Your task to perform on an android device: Open wifi settings Image 0: 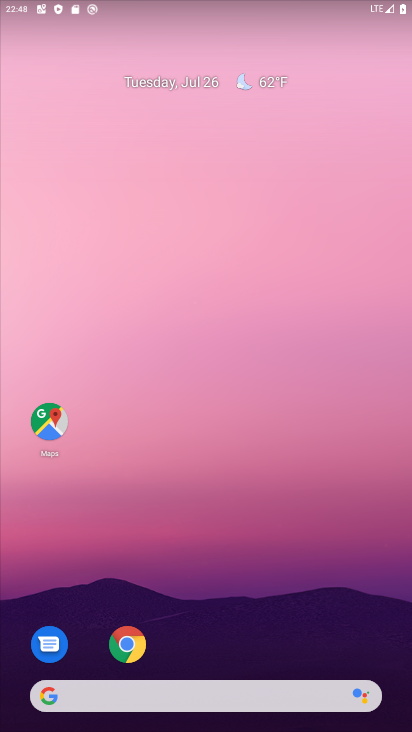
Step 0: drag from (261, 679) to (272, 8)
Your task to perform on an android device: Open wifi settings Image 1: 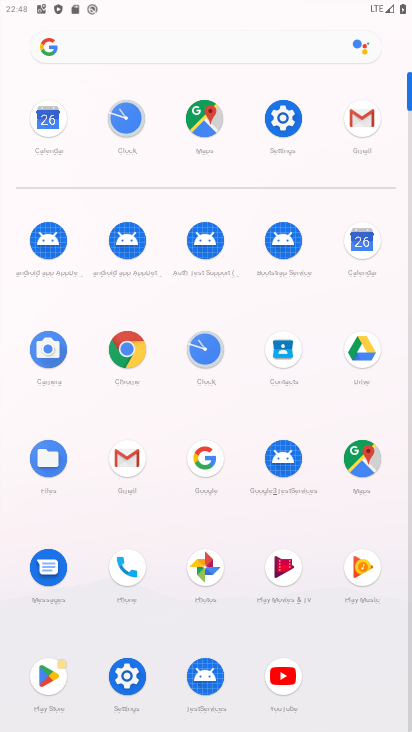
Step 1: click (278, 107)
Your task to perform on an android device: Open wifi settings Image 2: 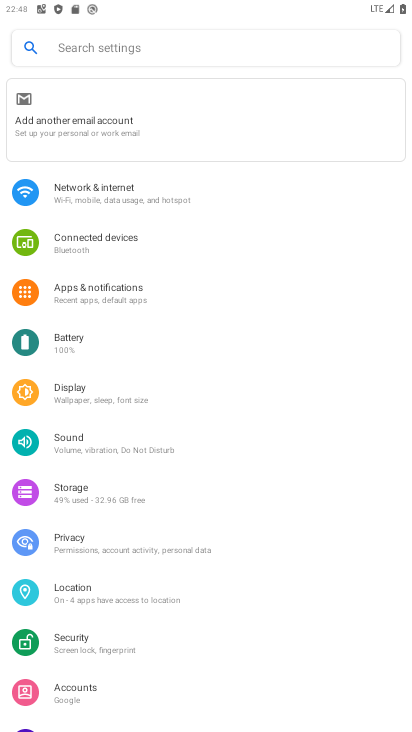
Step 2: click (76, 197)
Your task to perform on an android device: Open wifi settings Image 3: 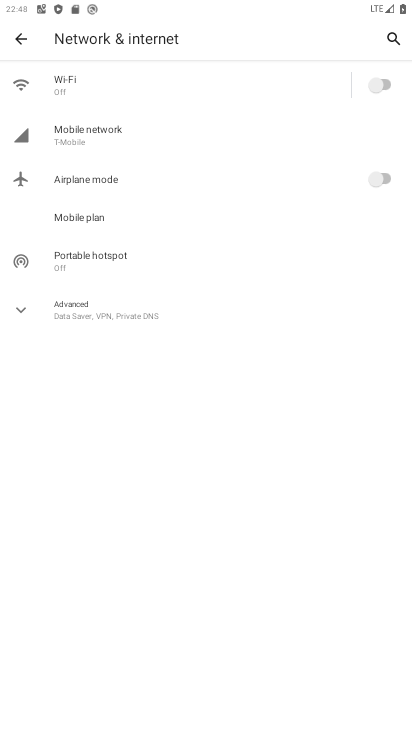
Step 3: click (27, 80)
Your task to perform on an android device: Open wifi settings Image 4: 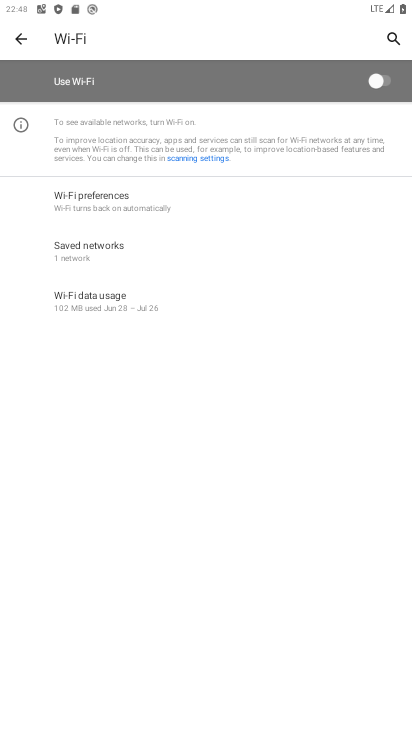
Step 4: task complete